Your task to perform on an android device: Open settings Image 0: 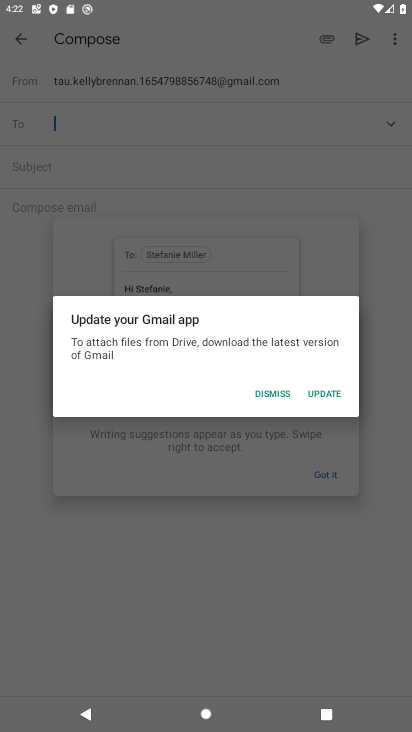
Step 0: press home button
Your task to perform on an android device: Open settings Image 1: 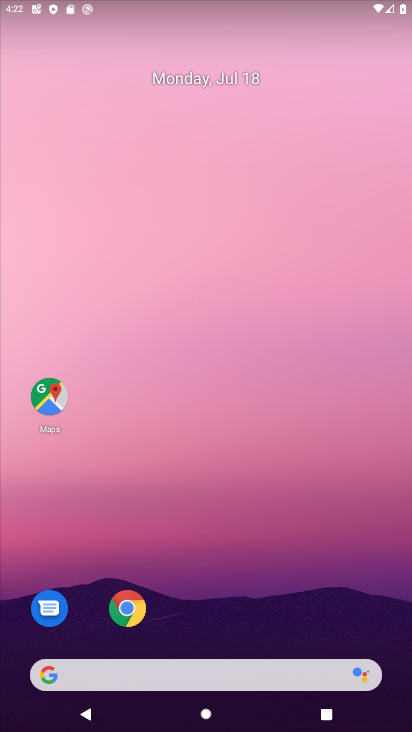
Step 1: drag from (369, 619) to (275, 0)
Your task to perform on an android device: Open settings Image 2: 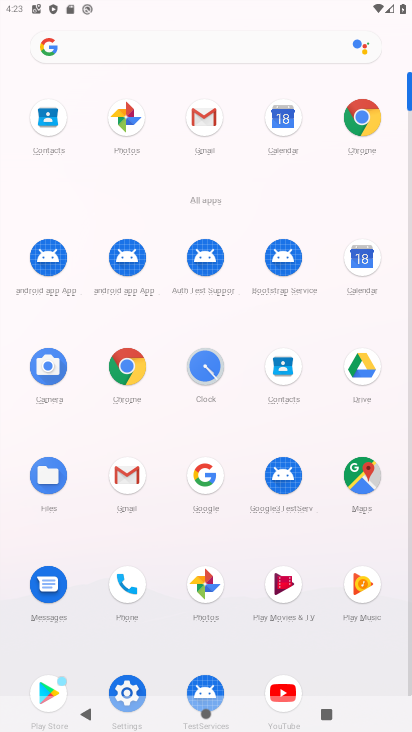
Step 2: click (123, 677)
Your task to perform on an android device: Open settings Image 3: 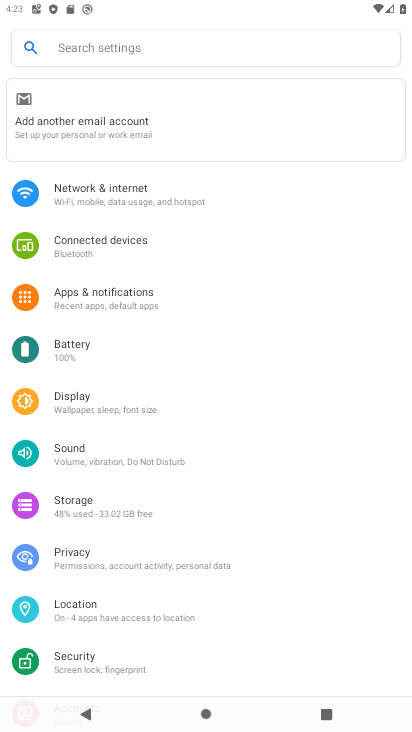
Step 3: task complete